Your task to perform on an android device: Set the phone to "Do not disturb". Image 0: 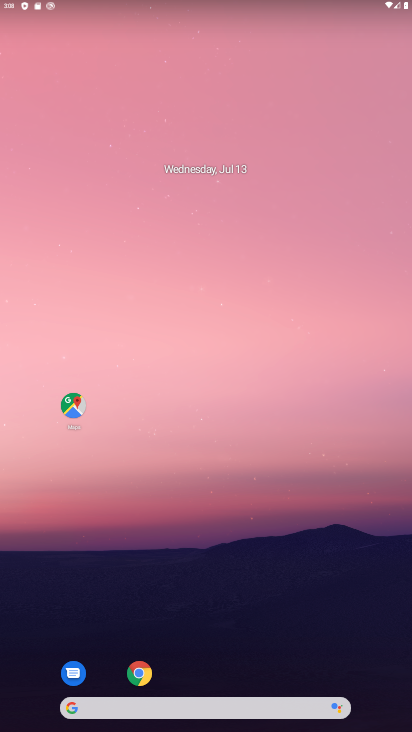
Step 0: drag from (242, 669) to (237, 113)
Your task to perform on an android device: Set the phone to "Do not disturb". Image 1: 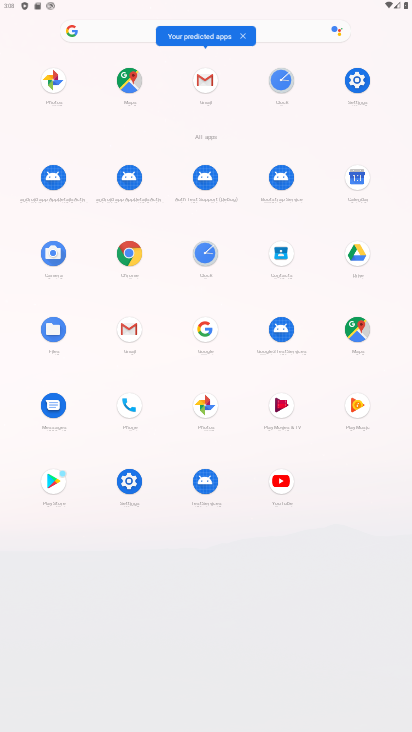
Step 1: click (355, 84)
Your task to perform on an android device: Set the phone to "Do not disturb". Image 2: 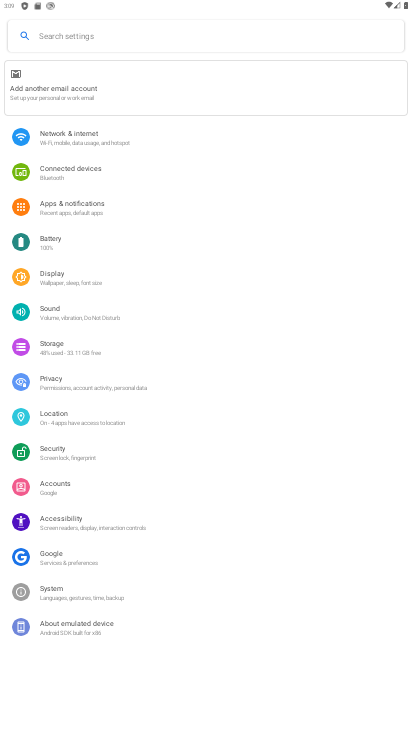
Step 2: click (53, 313)
Your task to perform on an android device: Set the phone to "Do not disturb". Image 3: 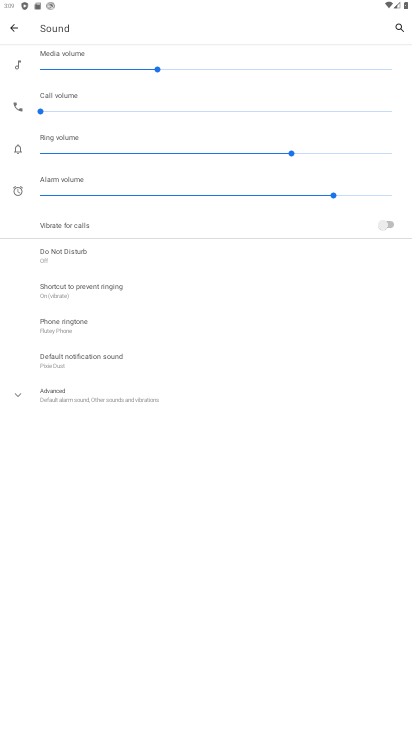
Step 3: click (132, 246)
Your task to perform on an android device: Set the phone to "Do not disturb". Image 4: 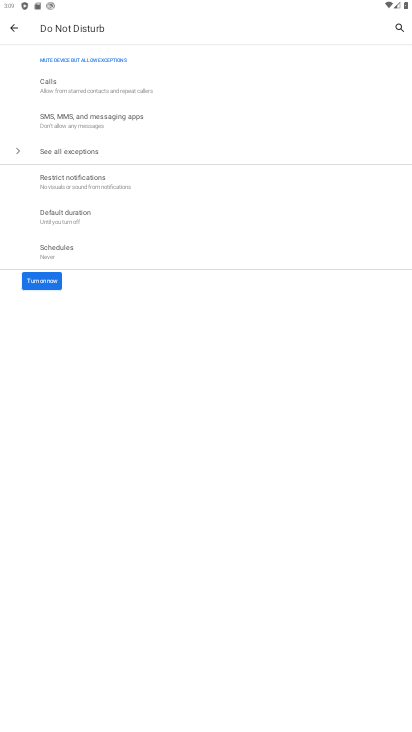
Step 4: click (47, 282)
Your task to perform on an android device: Set the phone to "Do not disturb". Image 5: 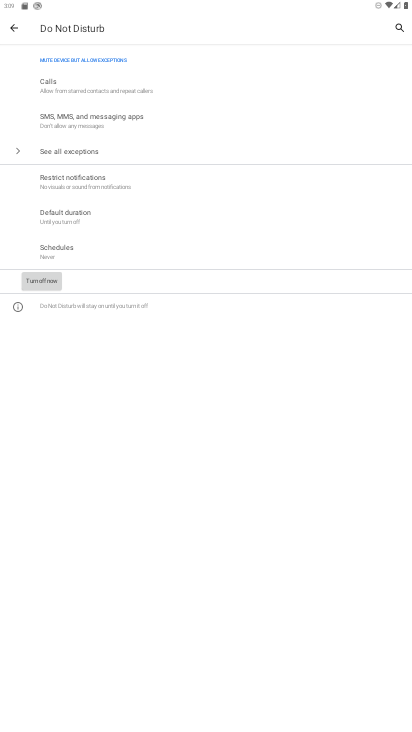
Step 5: task complete